Your task to perform on an android device: turn on wifi Image 0: 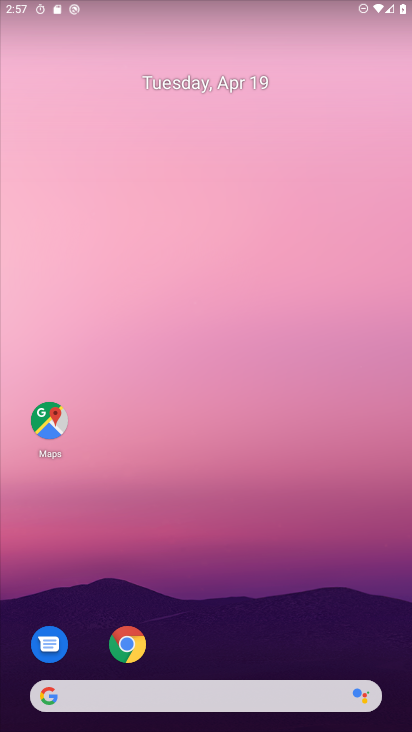
Step 0: drag from (208, 530) to (214, 156)
Your task to perform on an android device: turn on wifi Image 1: 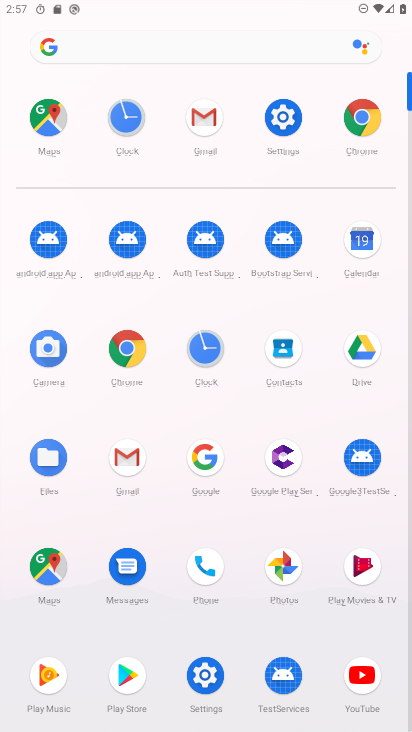
Step 1: click (287, 119)
Your task to perform on an android device: turn on wifi Image 2: 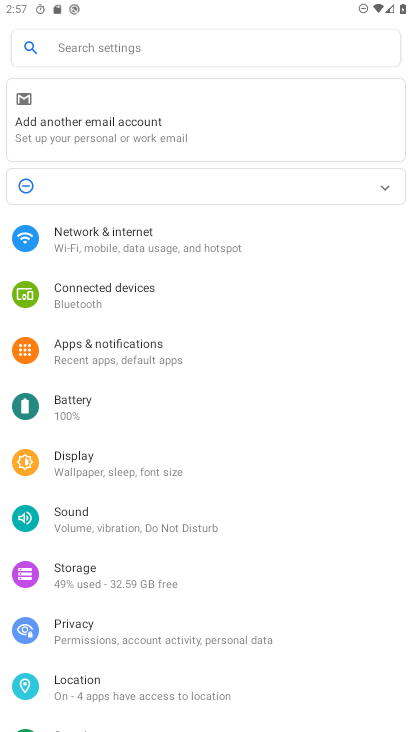
Step 2: click (110, 227)
Your task to perform on an android device: turn on wifi Image 3: 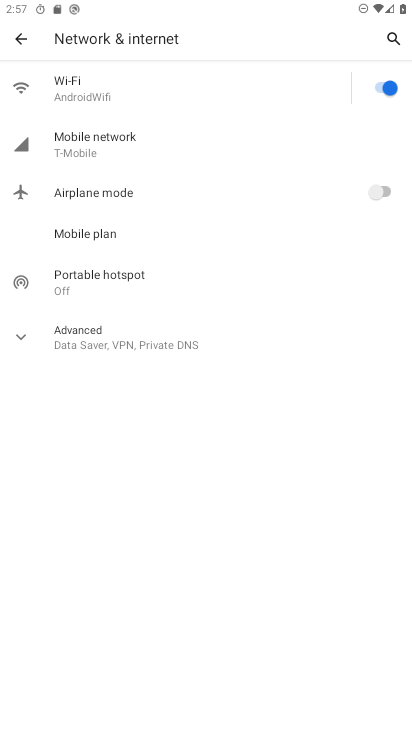
Step 3: task complete